Your task to perform on an android device: Open the calendar and show me this week's events? Image 0: 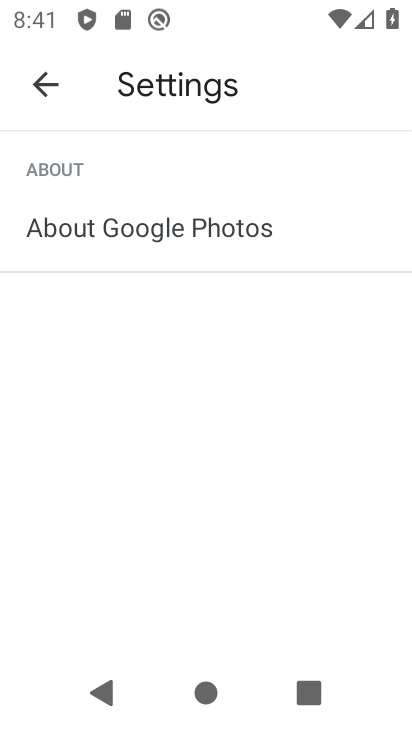
Step 0: press home button
Your task to perform on an android device: Open the calendar and show me this week's events? Image 1: 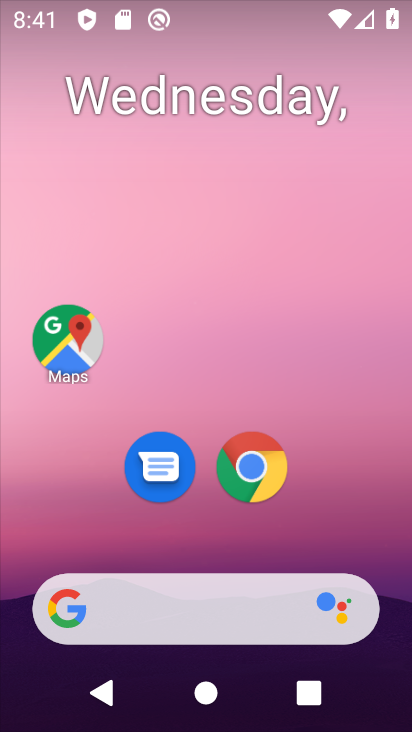
Step 1: drag from (359, 485) to (336, 138)
Your task to perform on an android device: Open the calendar and show me this week's events? Image 2: 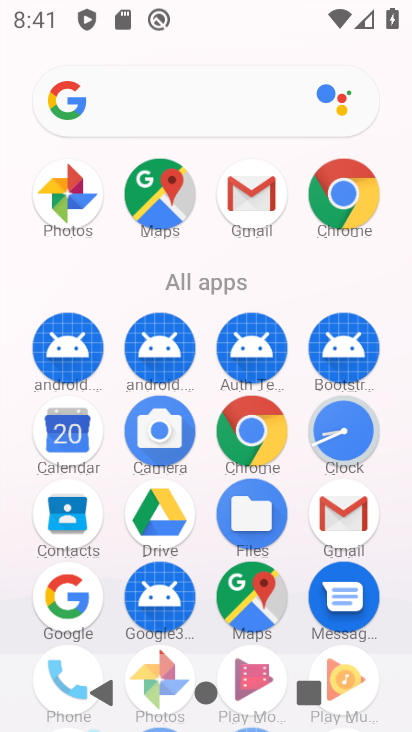
Step 2: click (58, 436)
Your task to perform on an android device: Open the calendar and show me this week's events? Image 3: 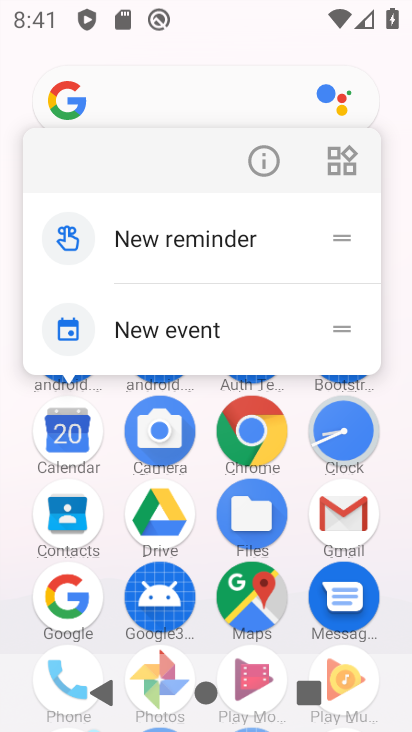
Step 3: click (57, 436)
Your task to perform on an android device: Open the calendar and show me this week's events? Image 4: 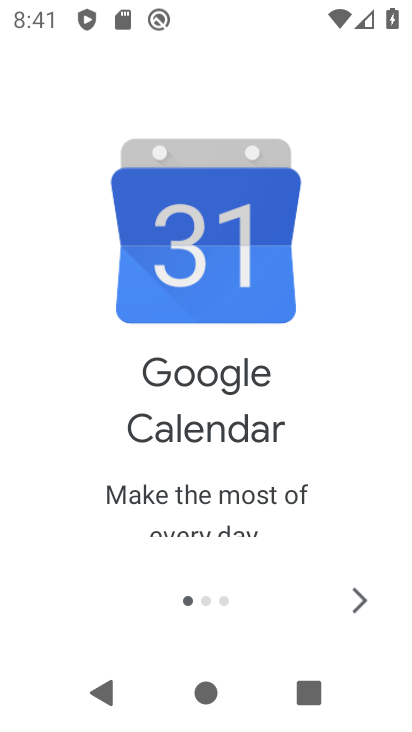
Step 4: click (356, 596)
Your task to perform on an android device: Open the calendar and show me this week's events? Image 5: 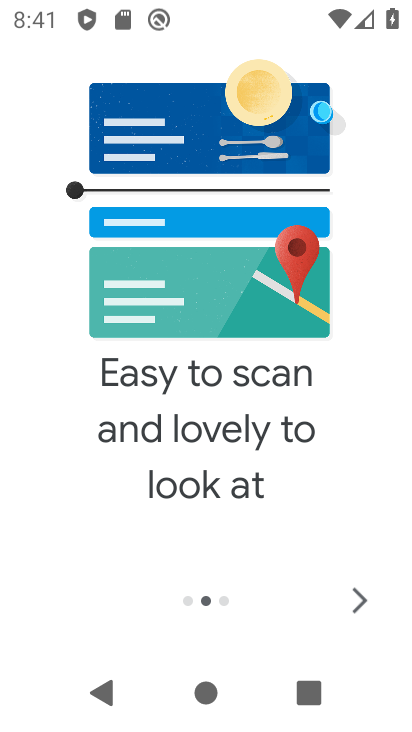
Step 5: click (357, 595)
Your task to perform on an android device: Open the calendar and show me this week's events? Image 6: 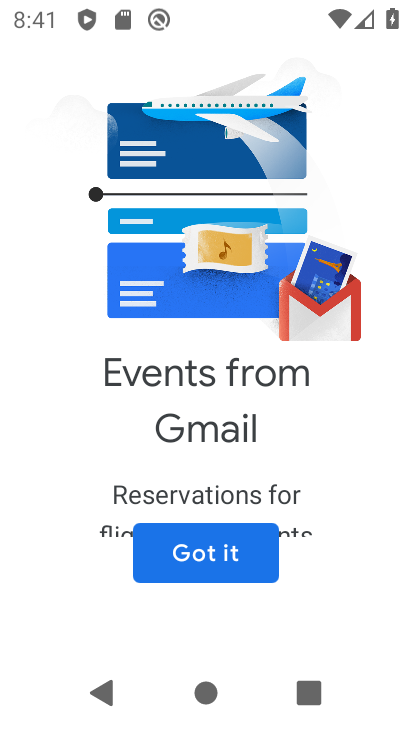
Step 6: click (260, 554)
Your task to perform on an android device: Open the calendar and show me this week's events? Image 7: 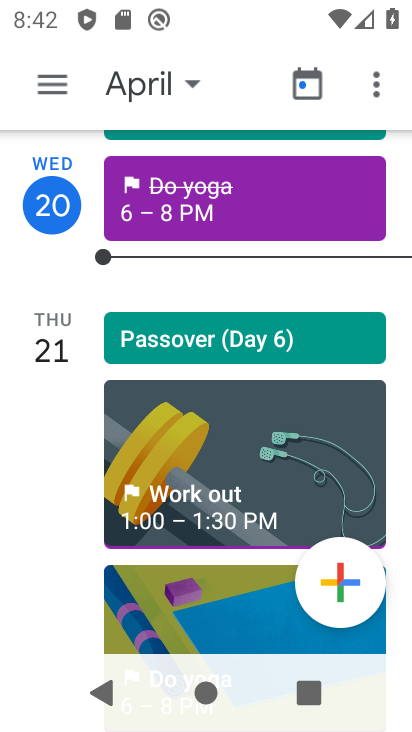
Step 7: task complete